Your task to perform on an android device: Open Google Maps and go to "Timeline" Image 0: 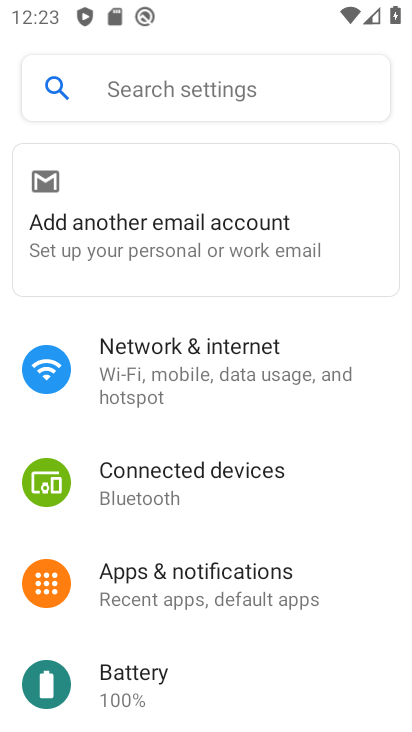
Step 0: press home button
Your task to perform on an android device: Open Google Maps and go to "Timeline" Image 1: 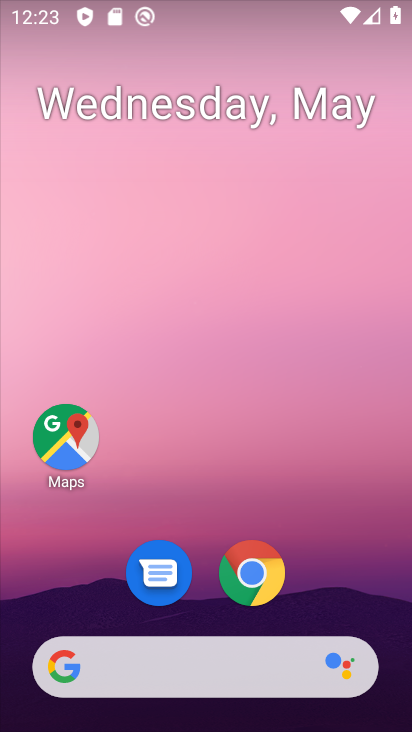
Step 1: click (51, 470)
Your task to perform on an android device: Open Google Maps and go to "Timeline" Image 2: 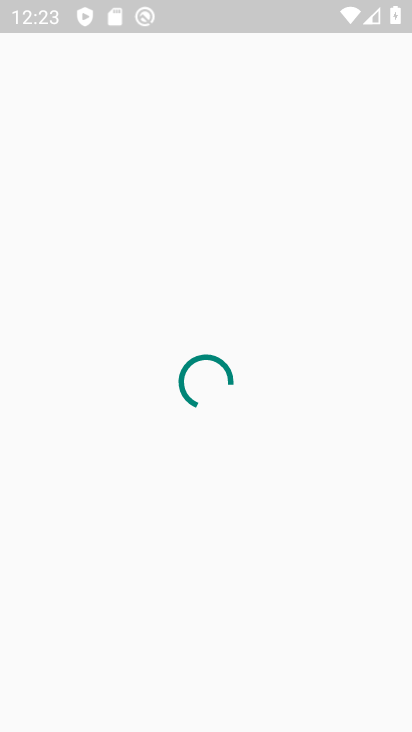
Step 2: drag from (292, 85) to (269, 283)
Your task to perform on an android device: Open Google Maps and go to "Timeline" Image 3: 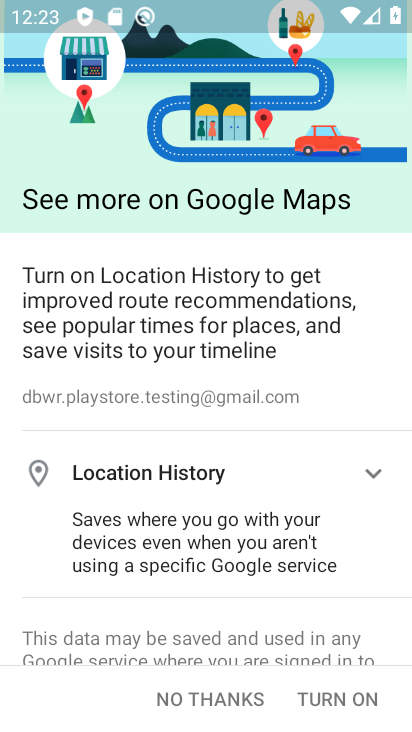
Step 3: click (205, 692)
Your task to perform on an android device: Open Google Maps and go to "Timeline" Image 4: 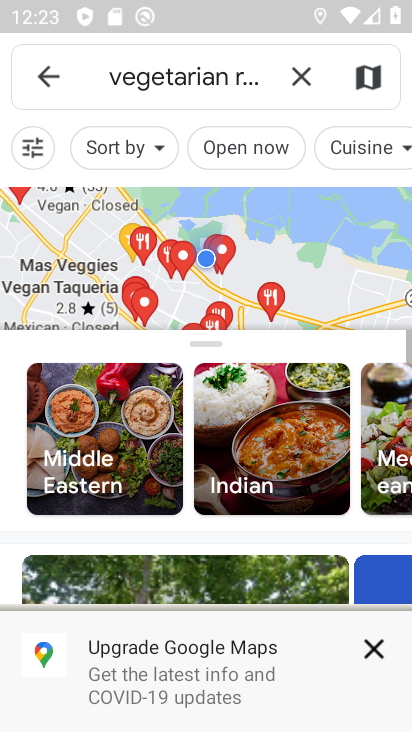
Step 4: click (47, 77)
Your task to perform on an android device: Open Google Maps and go to "Timeline" Image 5: 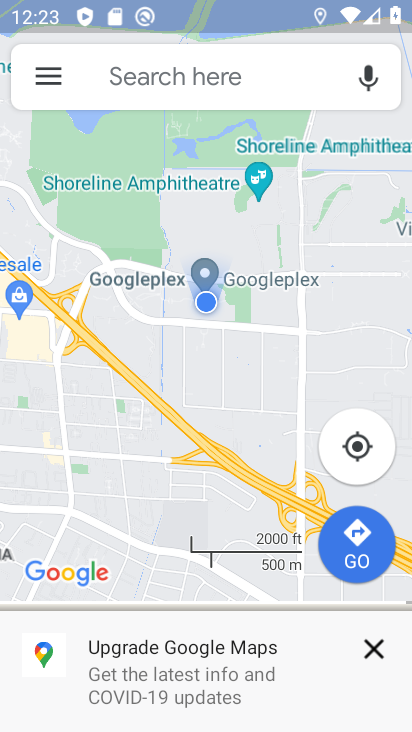
Step 5: click (47, 77)
Your task to perform on an android device: Open Google Maps and go to "Timeline" Image 6: 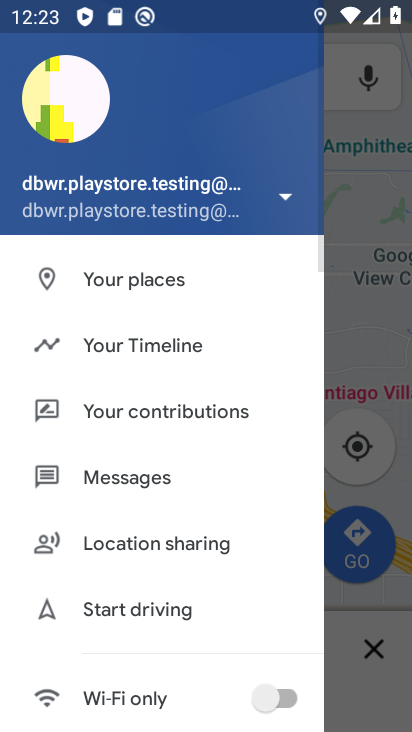
Step 6: click (135, 355)
Your task to perform on an android device: Open Google Maps and go to "Timeline" Image 7: 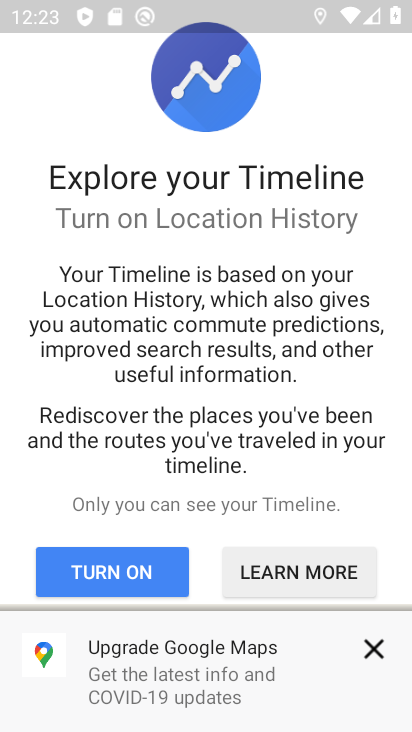
Step 7: click (372, 661)
Your task to perform on an android device: Open Google Maps and go to "Timeline" Image 8: 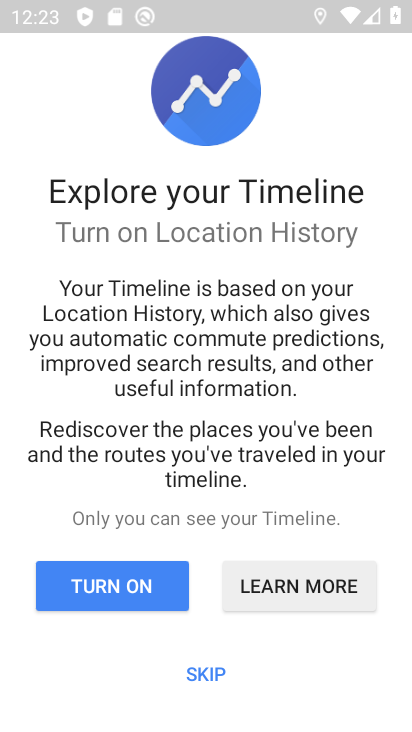
Step 8: click (225, 663)
Your task to perform on an android device: Open Google Maps and go to "Timeline" Image 9: 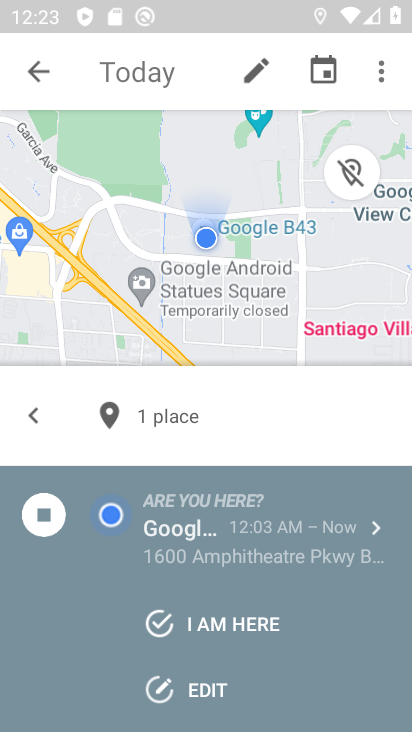
Step 9: task complete